Your task to perform on an android device: Open CNN.com Image 0: 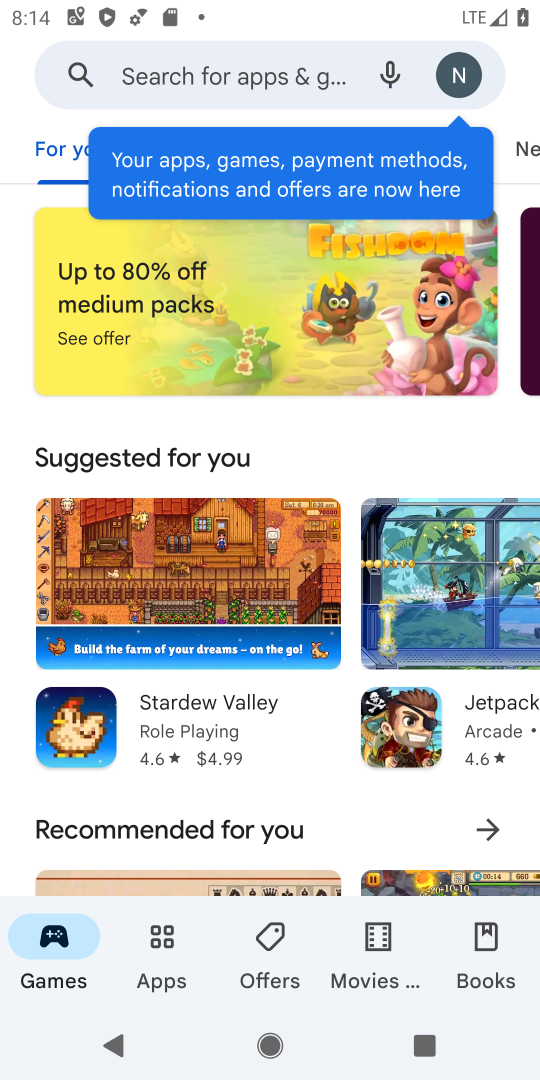
Step 0: press home button
Your task to perform on an android device: Open CNN.com Image 1: 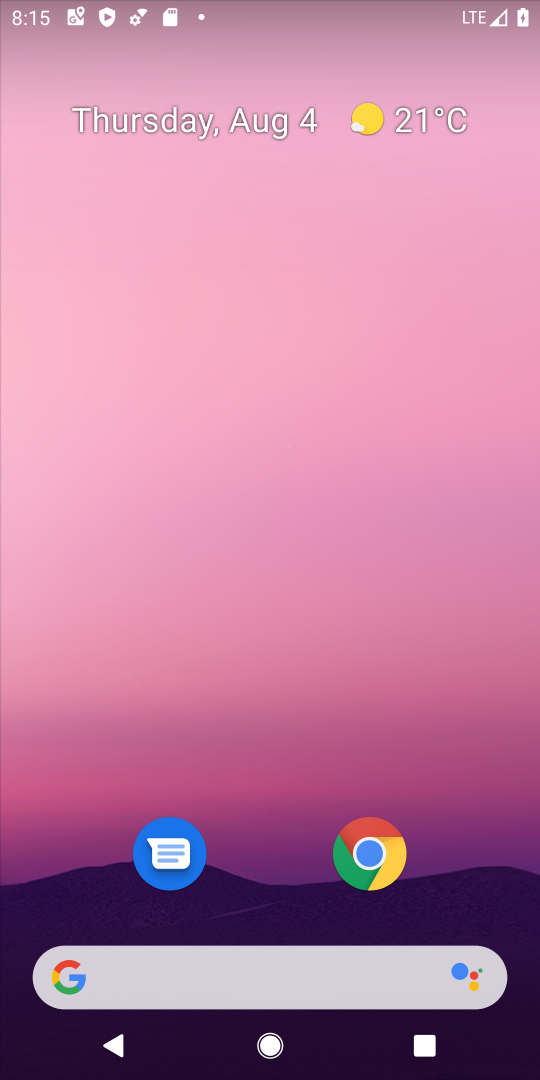
Step 1: drag from (254, 947) to (8, 126)
Your task to perform on an android device: Open CNN.com Image 2: 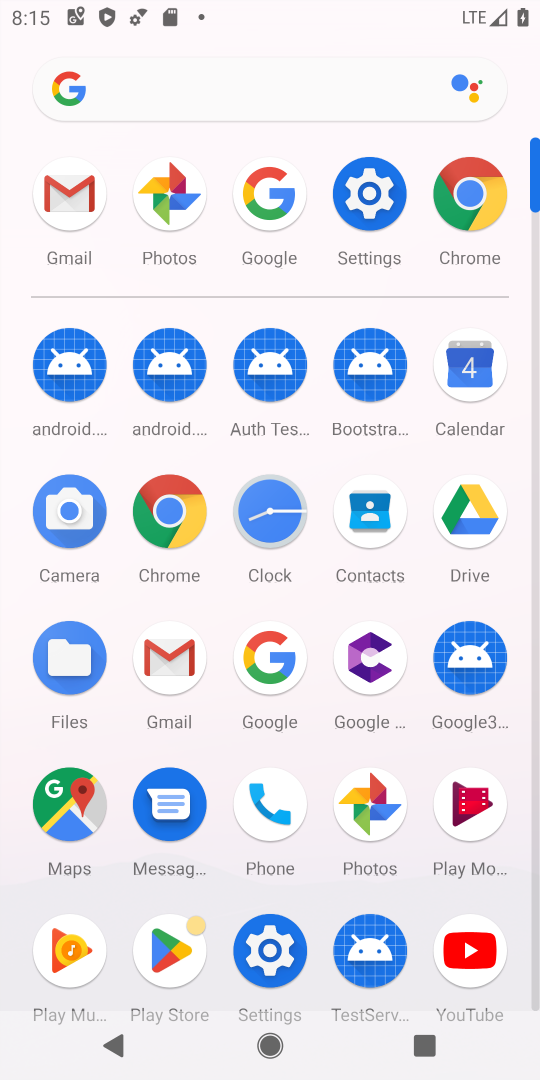
Step 2: click (271, 669)
Your task to perform on an android device: Open CNN.com Image 3: 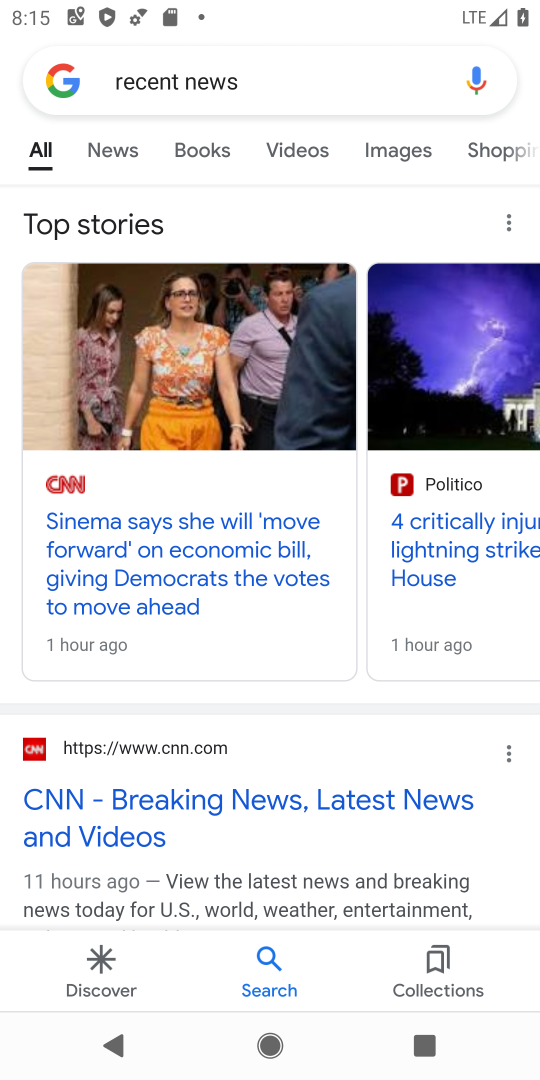
Step 3: click (238, 77)
Your task to perform on an android device: Open CNN.com Image 4: 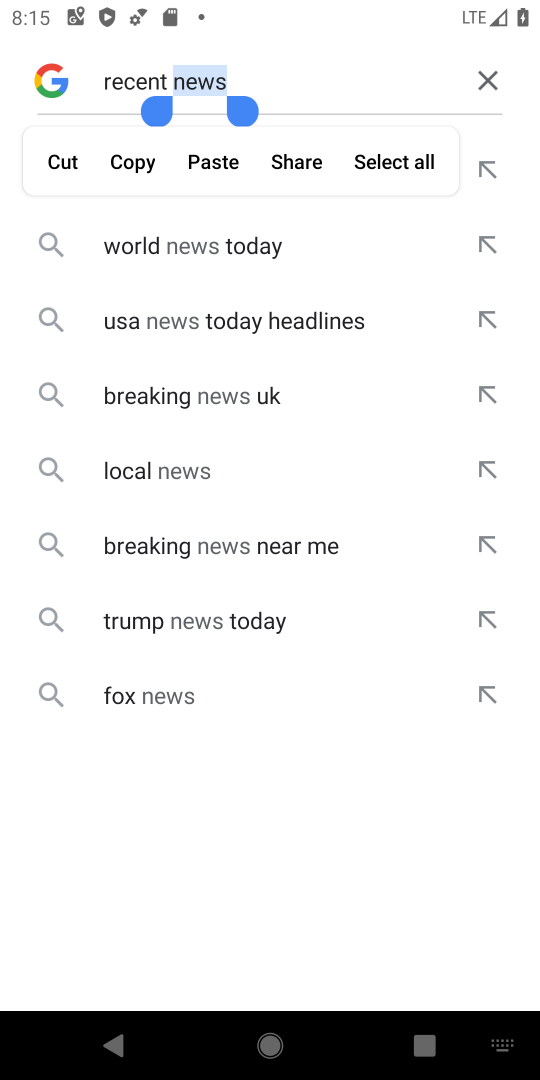
Step 4: click (472, 89)
Your task to perform on an android device: Open CNN.com Image 5: 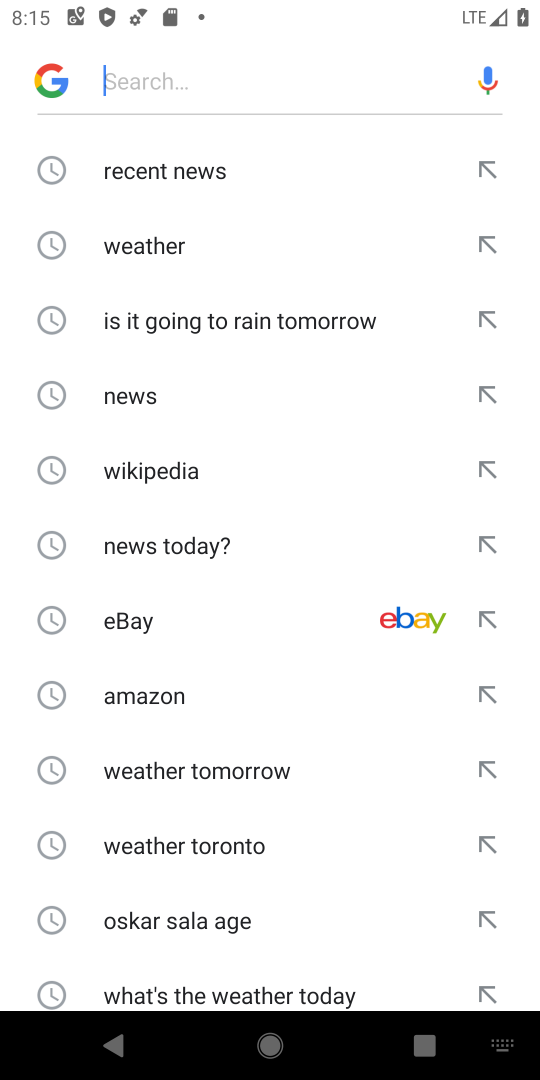
Step 5: drag from (300, 883) to (41, 259)
Your task to perform on an android device: Open CNN.com Image 6: 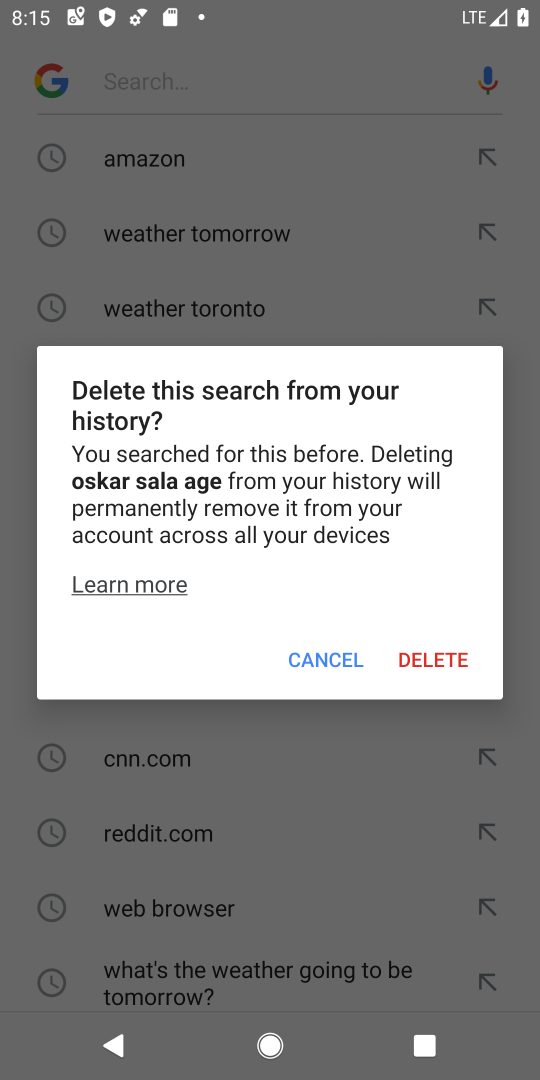
Step 6: click (282, 653)
Your task to perform on an android device: Open CNN.com Image 7: 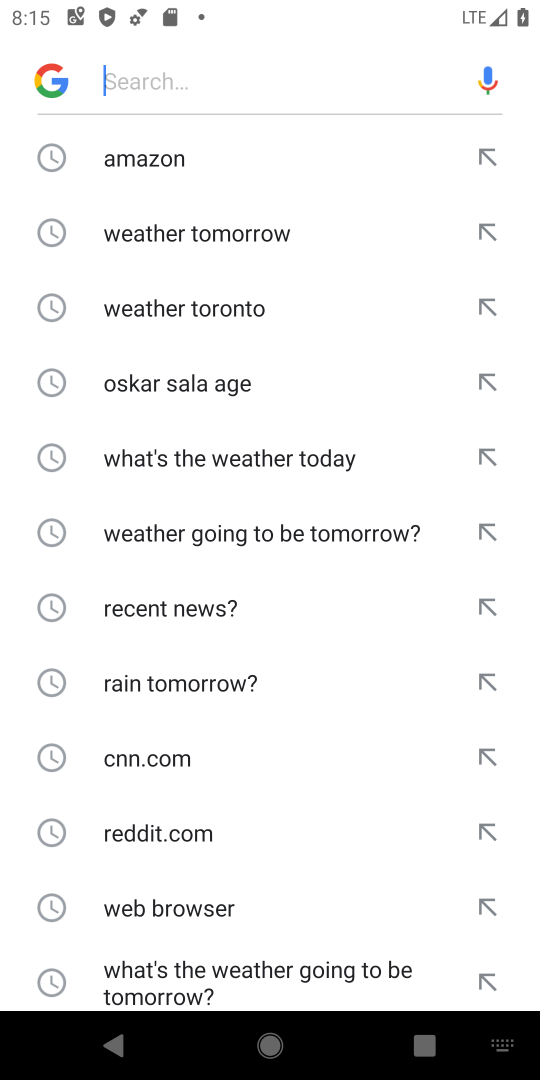
Step 7: click (146, 766)
Your task to perform on an android device: Open CNN.com Image 8: 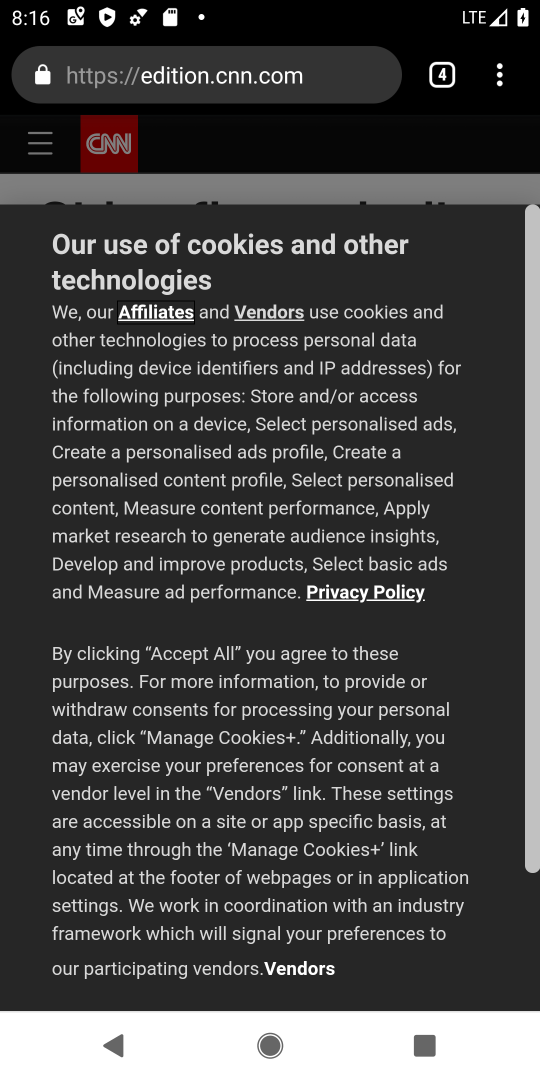
Step 8: task complete